Your task to perform on an android device: Open settings on Google Maps Image 0: 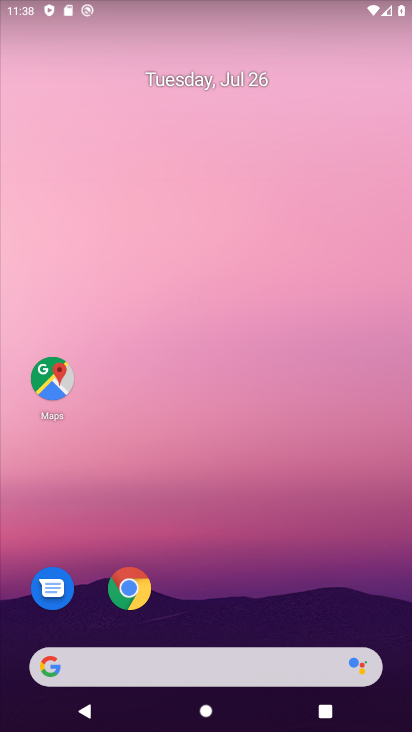
Step 0: click (37, 378)
Your task to perform on an android device: Open settings on Google Maps Image 1: 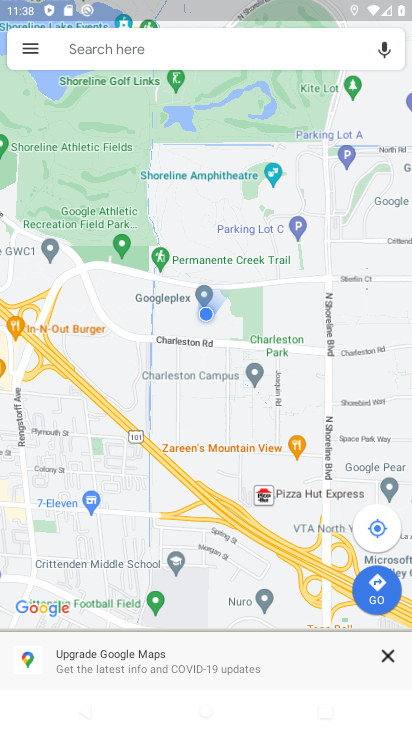
Step 1: task complete